Your task to perform on an android device: turn on showing notifications on the lock screen Image 0: 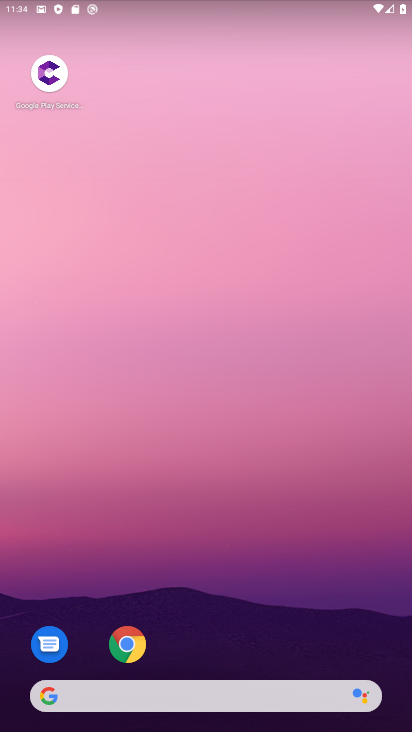
Step 0: drag from (207, 670) to (272, 5)
Your task to perform on an android device: turn on showing notifications on the lock screen Image 1: 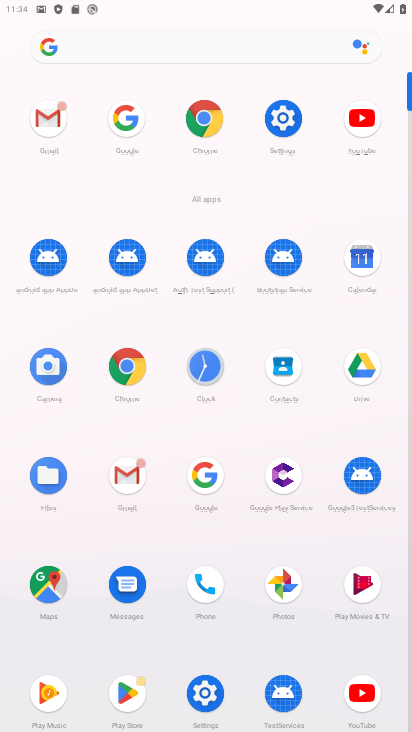
Step 1: click (194, 680)
Your task to perform on an android device: turn on showing notifications on the lock screen Image 2: 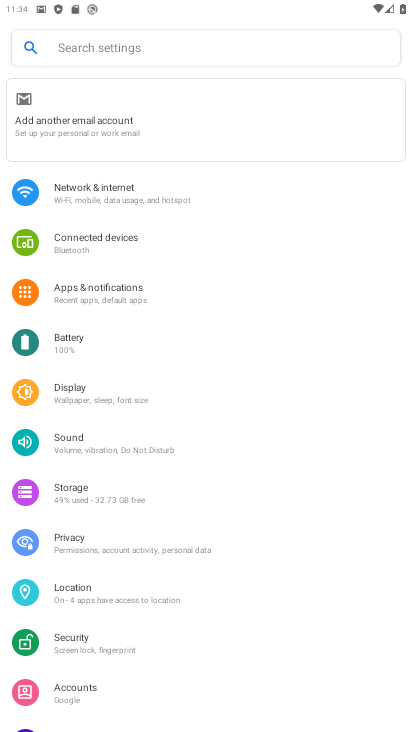
Step 2: click (97, 280)
Your task to perform on an android device: turn on showing notifications on the lock screen Image 3: 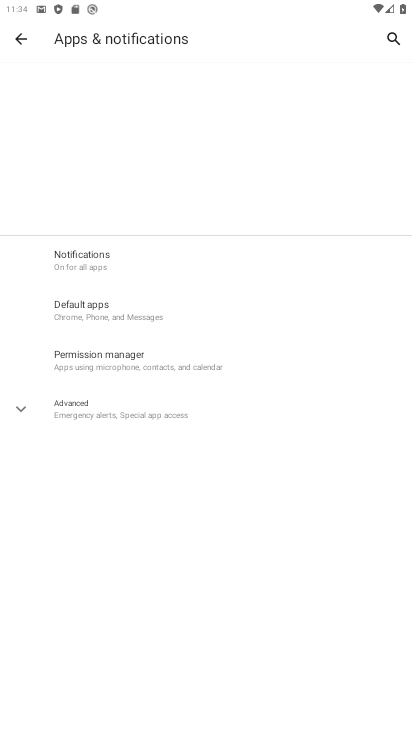
Step 3: click (97, 253)
Your task to perform on an android device: turn on showing notifications on the lock screen Image 4: 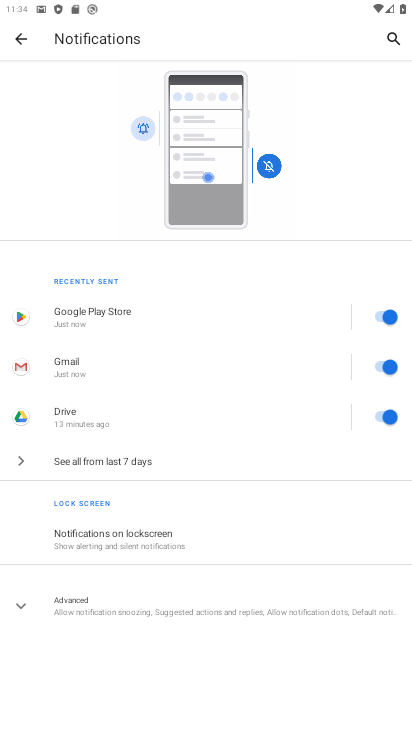
Step 4: click (122, 532)
Your task to perform on an android device: turn on showing notifications on the lock screen Image 5: 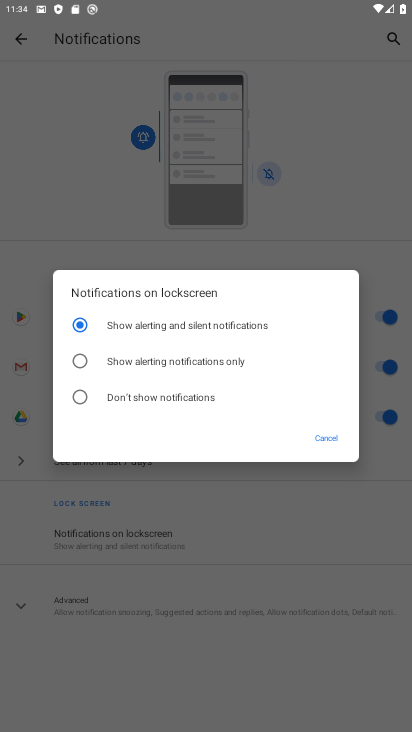
Step 5: click (116, 335)
Your task to perform on an android device: turn on showing notifications on the lock screen Image 6: 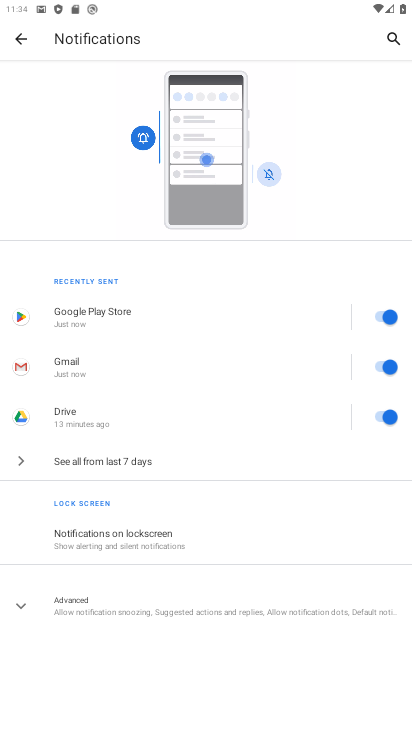
Step 6: task complete